Your task to perform on an android device: Add usb-a to the cart on newegg.com Image 0: 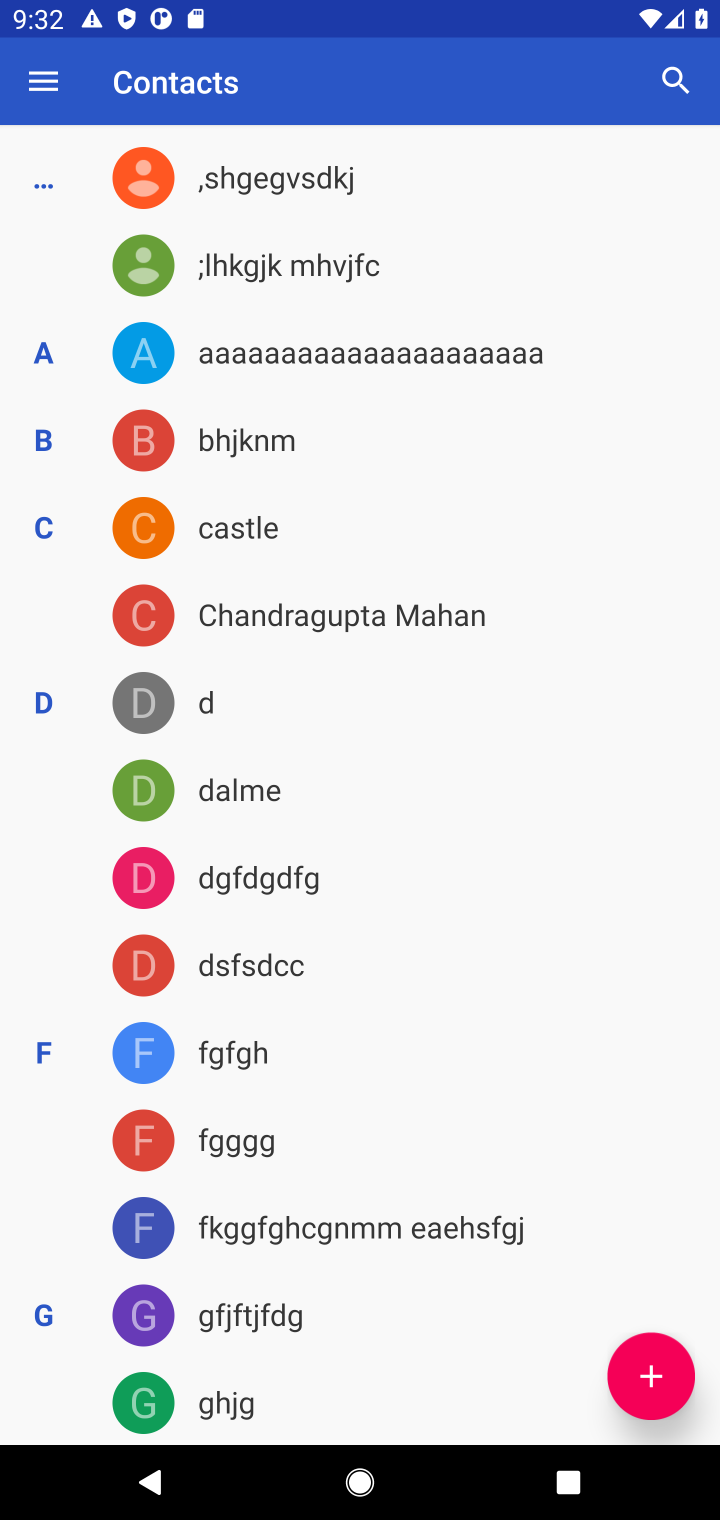
Step 0: press home button
Your task to perform on an android device: Add usb-a to the cart on newegg.com Image 1: 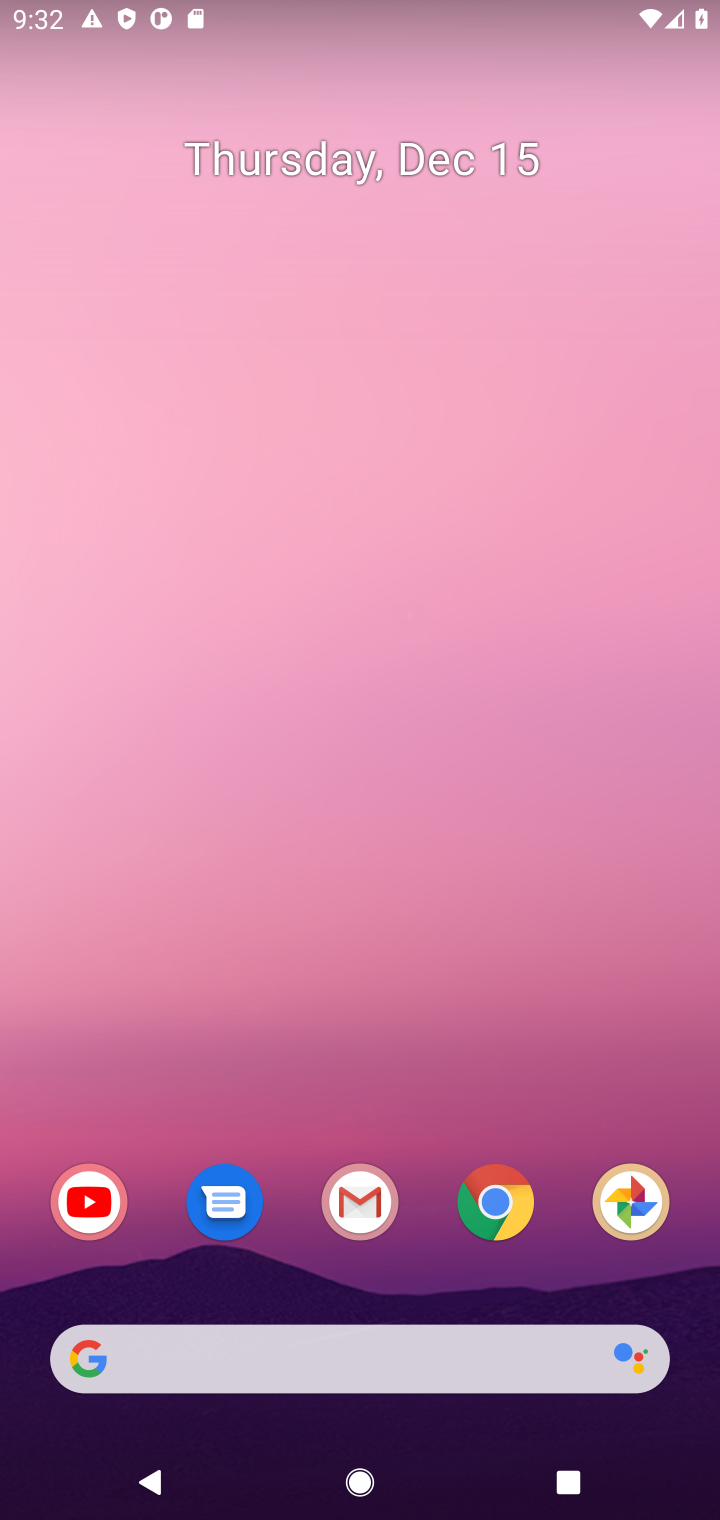
Step 1: click (481, 1204)
Your task to perform on an android device: Add usb-a to the cart on newegg.com Image 2: 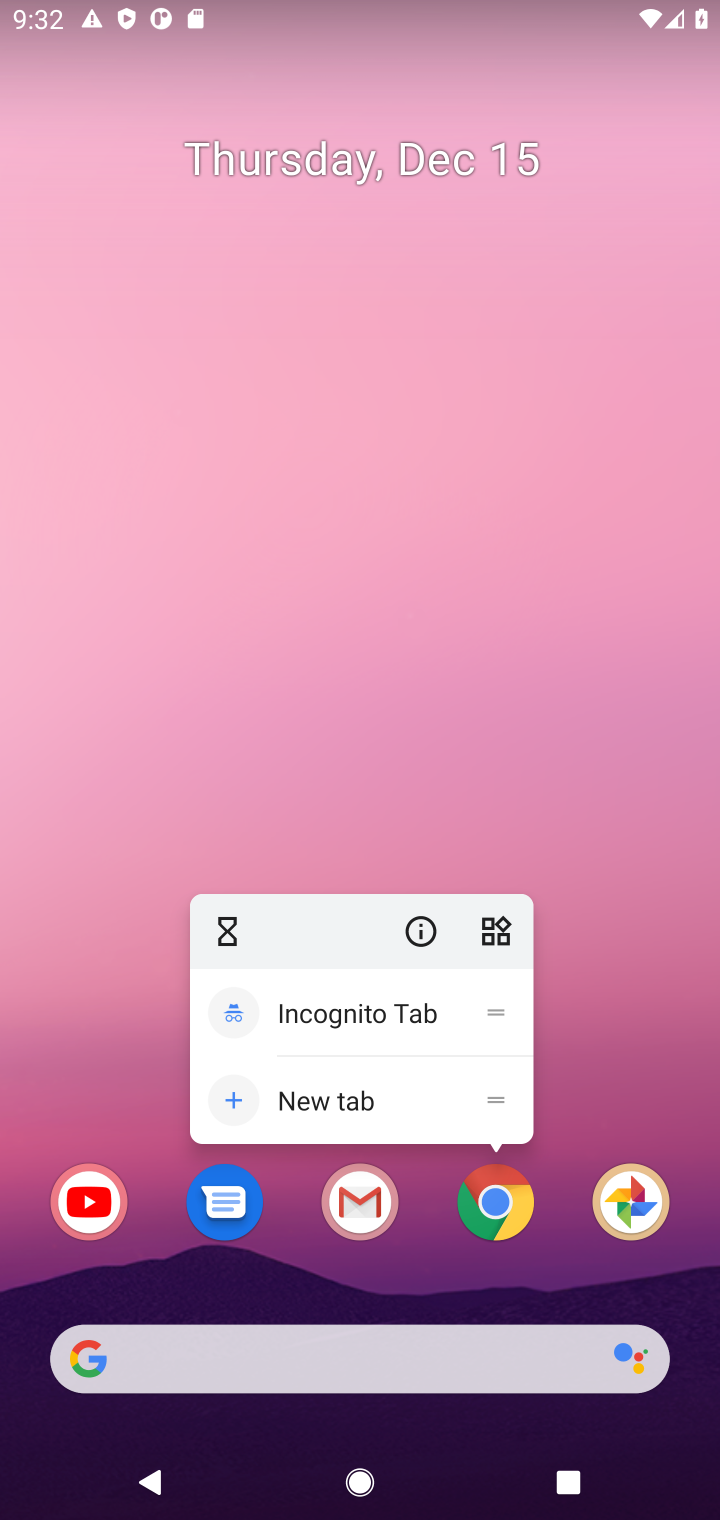
Step 2: click (496, 1223)
Your task to perform on an android device: Add usb-a to the cart on newegg.com Image 3: 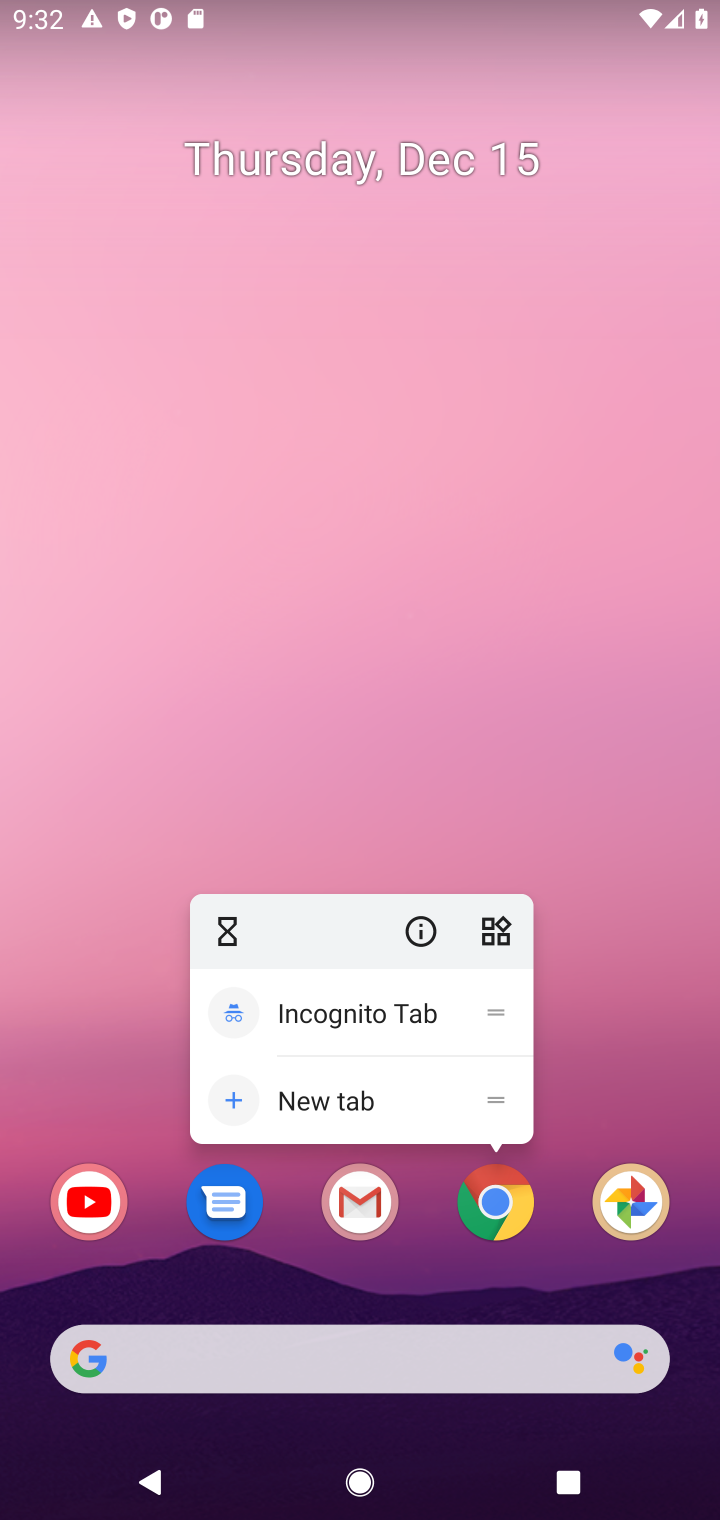
Step 3: click (498, 1215)
Your task to perform on an android device: Add usb-a to the cart on newegg.com Image 4: 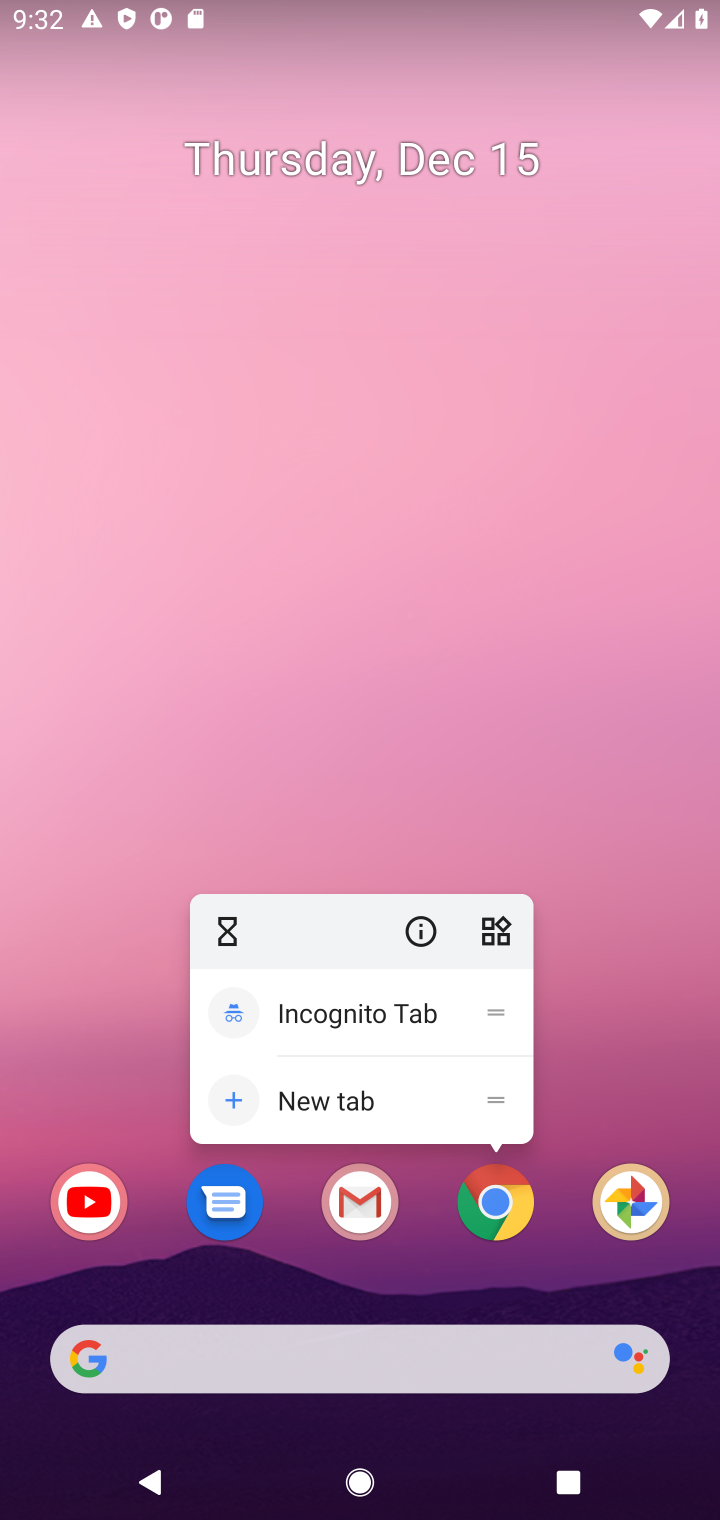
Step 4: click (498, 1215)
Your task to perform on an android device: Add usb-a to the cart on newegg.com Image 5: 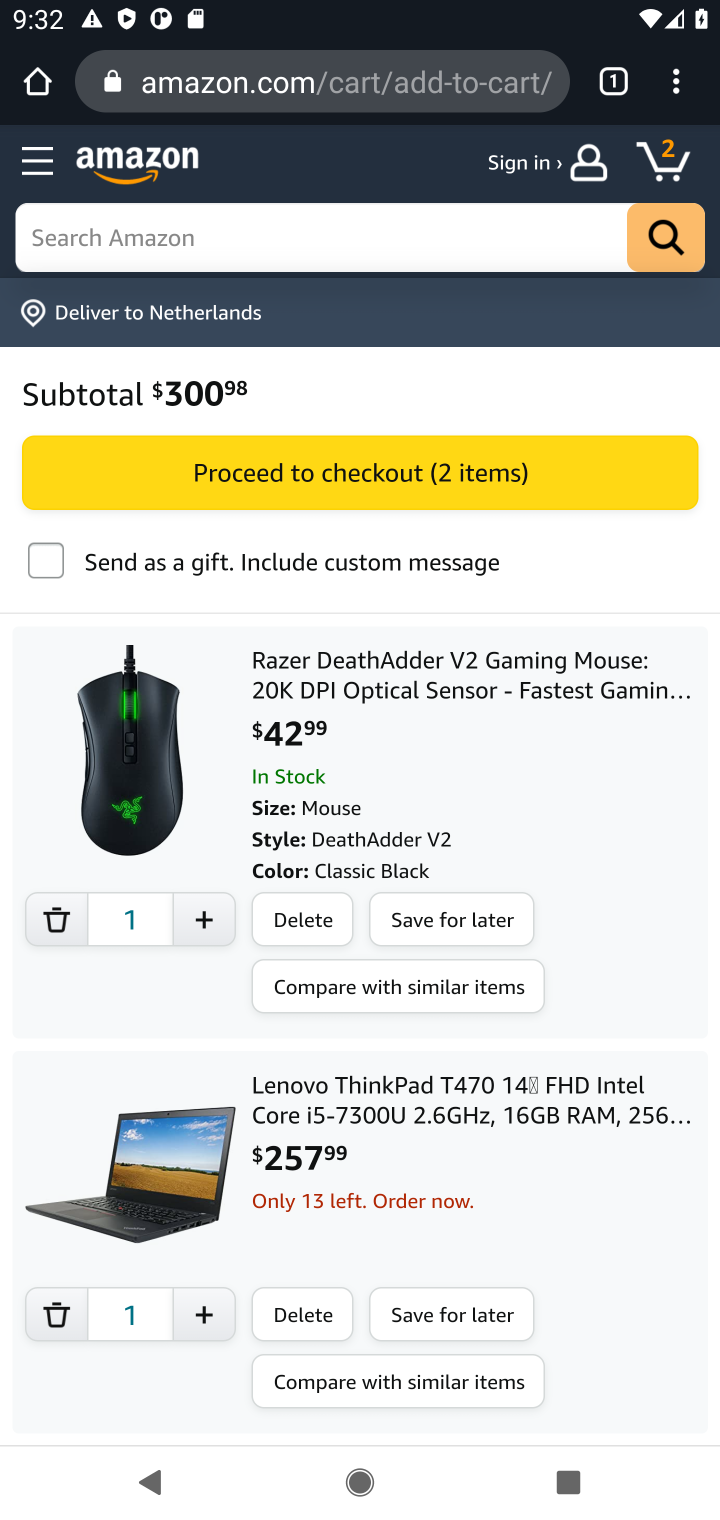
Step 5: click (303, 85)
Your task to perform on an android device: Add usb-a to the cart on newegg.com Image 6: 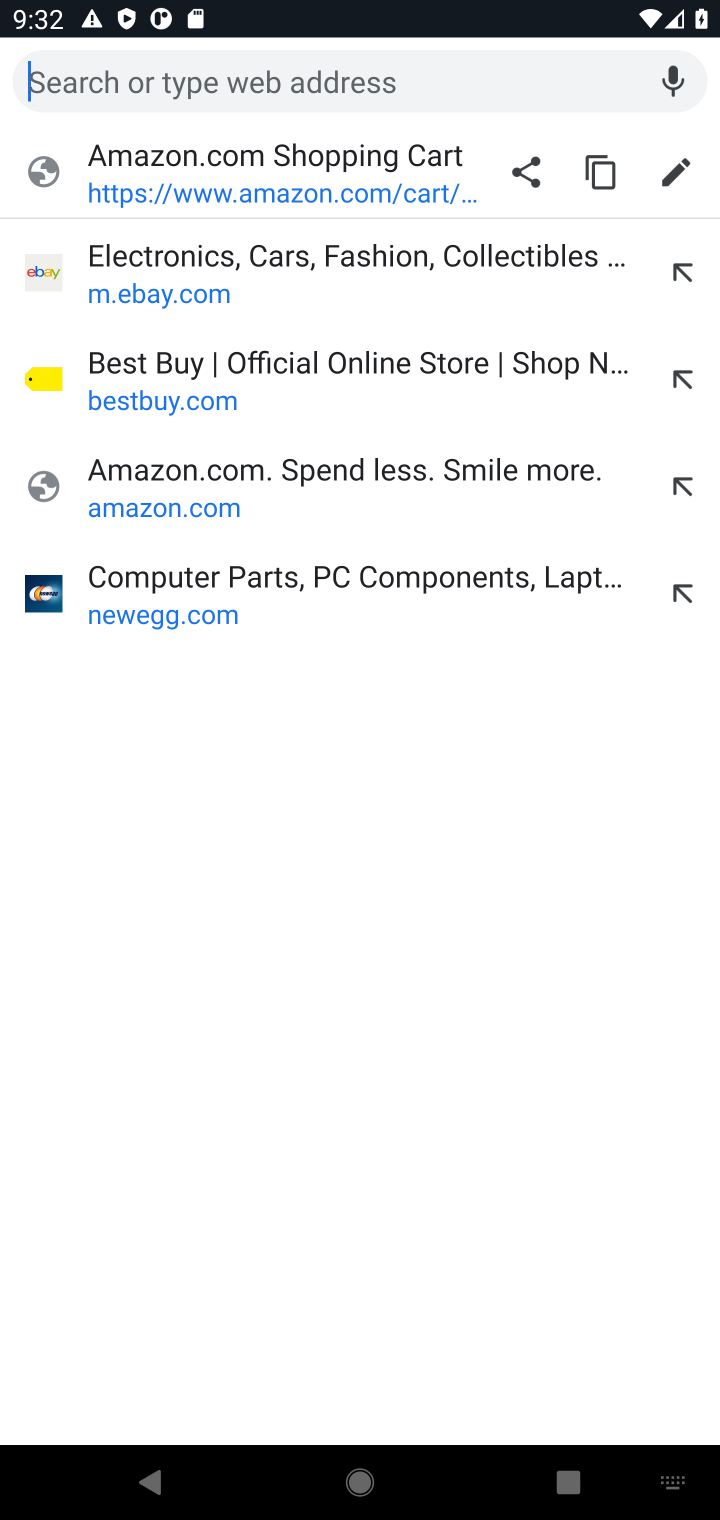
Step 6: click (123, 630)
Your task to perform on an android device: Add usb-a to the cart on newegg.com Image 7: 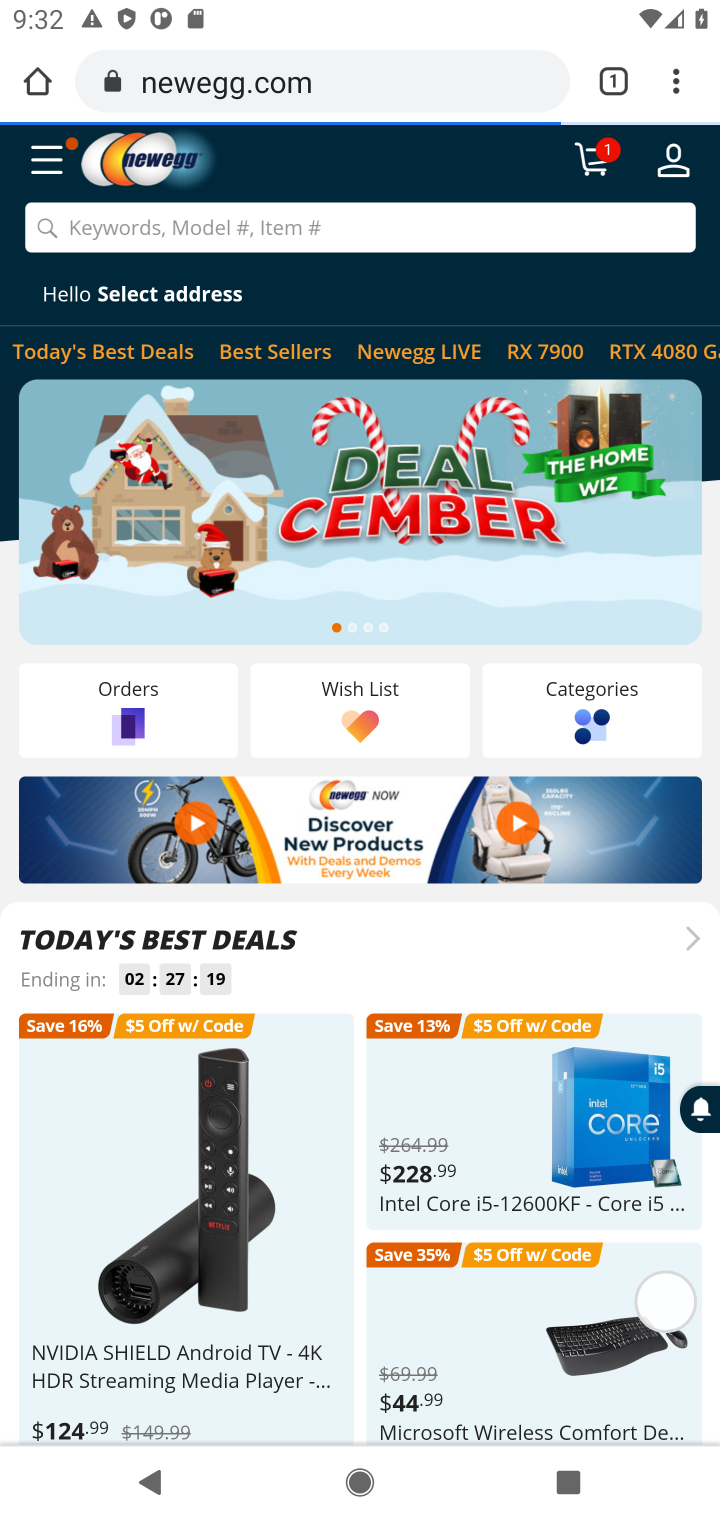
Step 7: click (165, 234)
Your task to perform on an android device: Add usb-a to the cart on newegg.com Image 8: 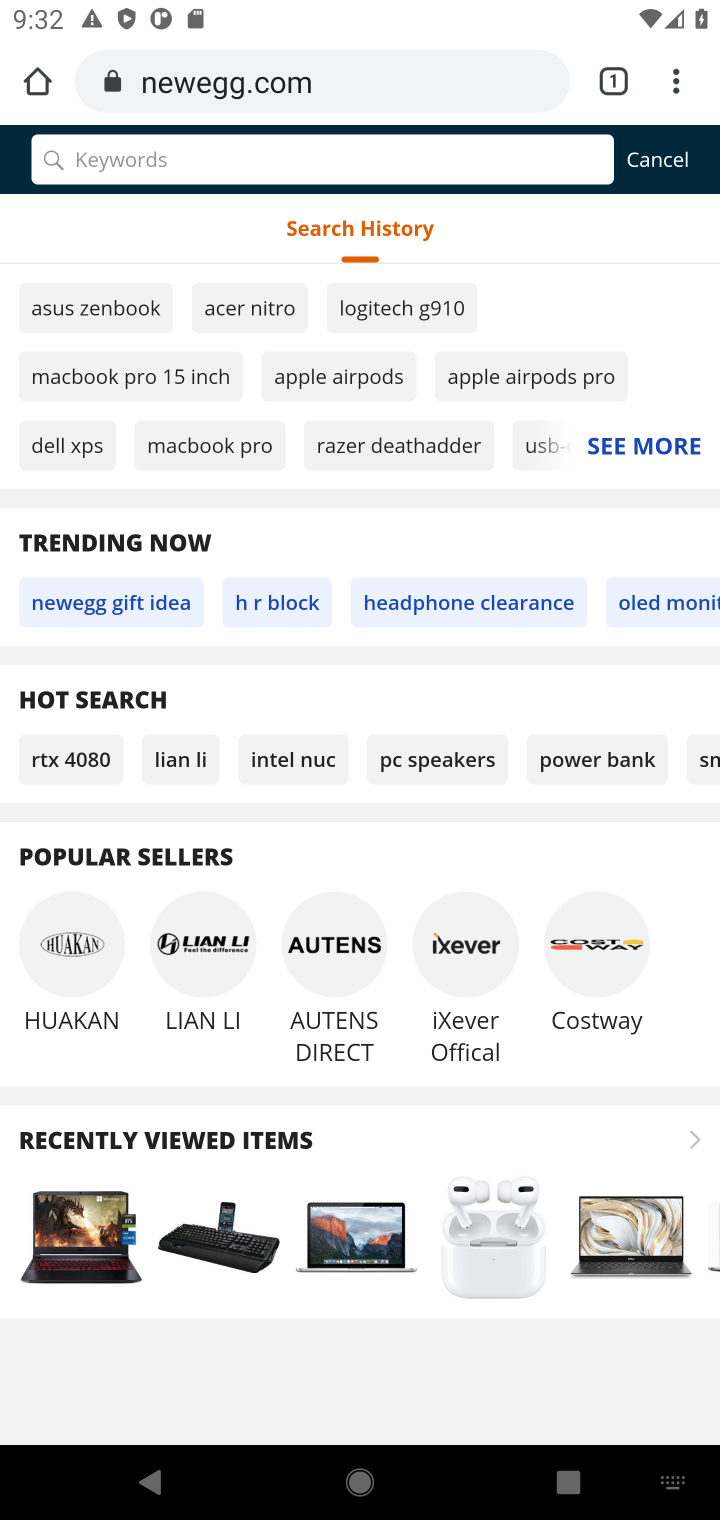
Step 8: type "usb-a"
Your task to perform on an android device: Add usb-a to the cart on newegg.com Image 9: 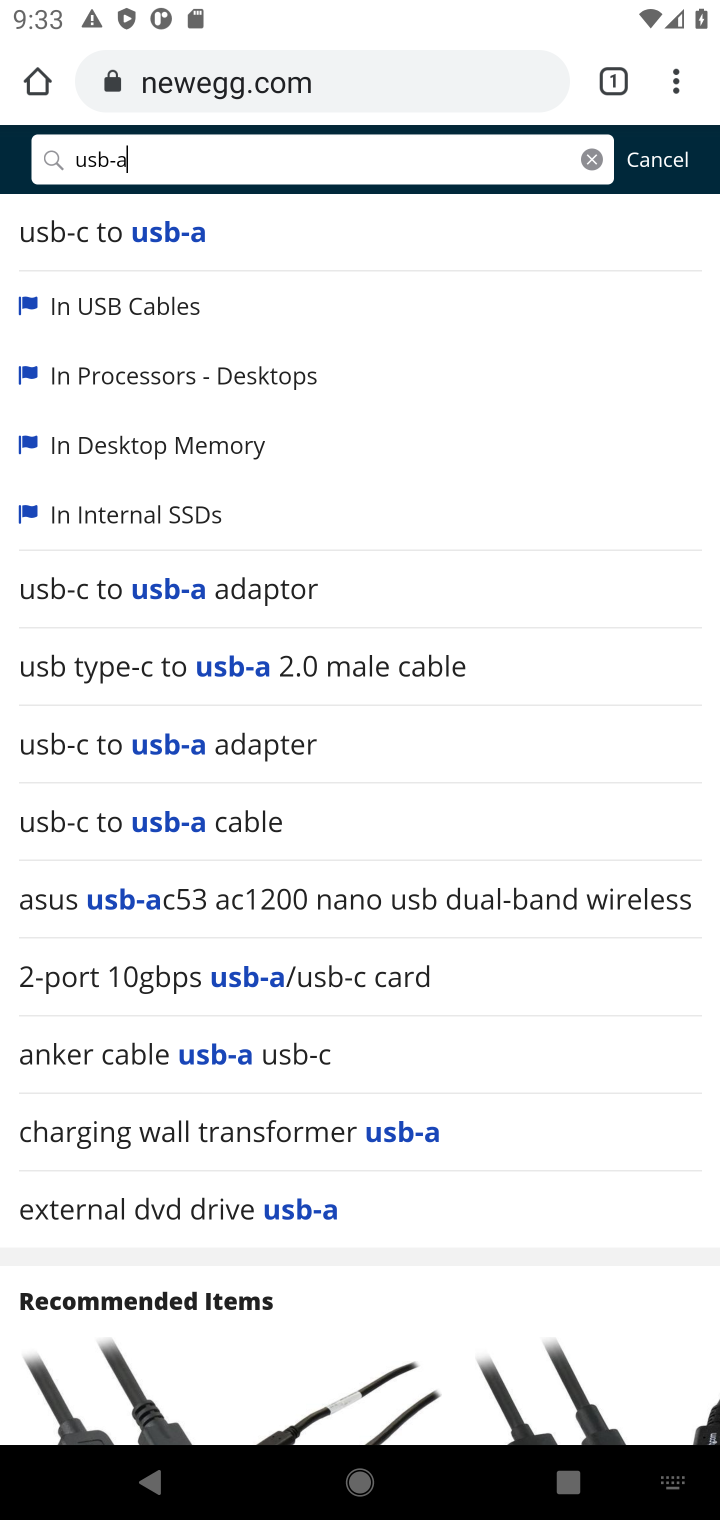
Step 9: drag from (186, 726) to (186, 403)
Your task to perform on an android device: Add usb-a to the cart on newegg.com Image 10: 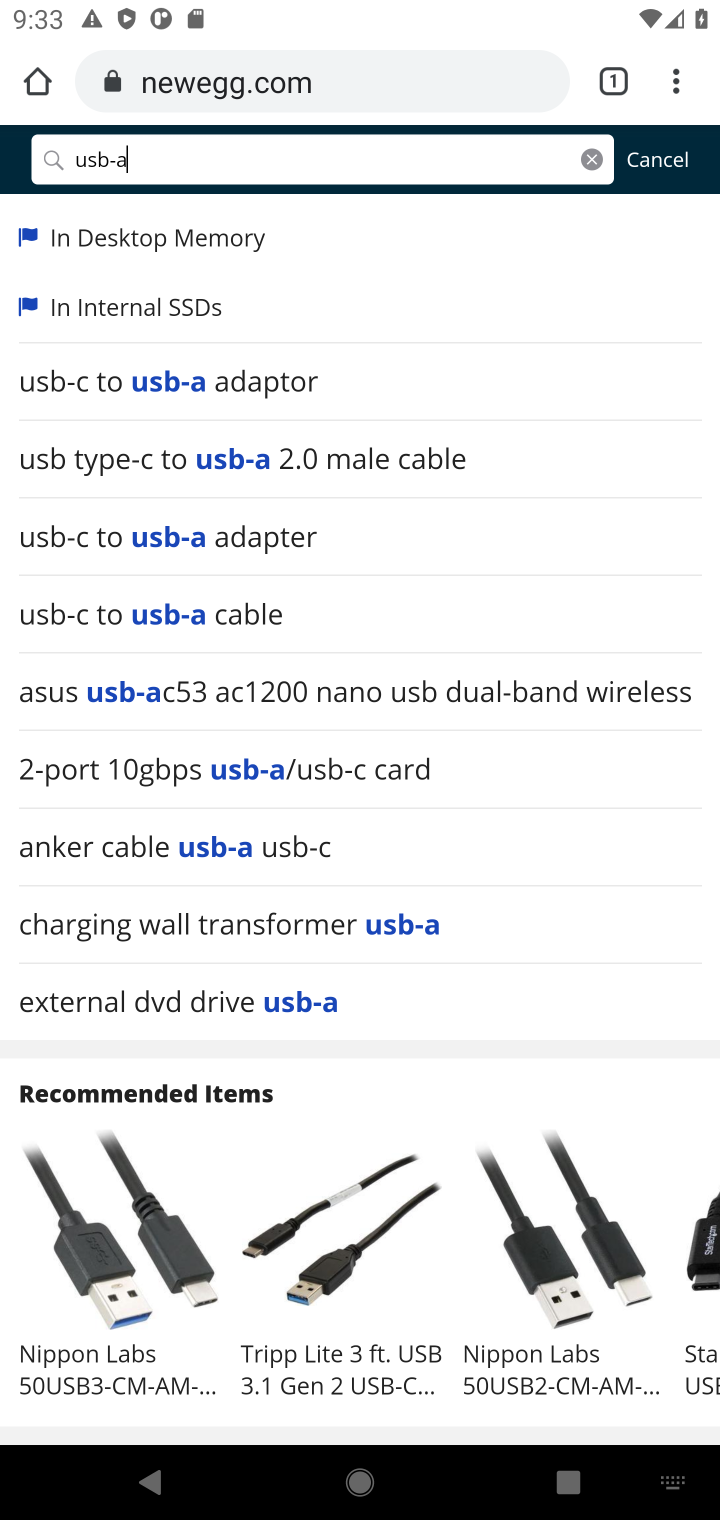
Step 10: drag from (186, 403) to (159, 904)
Your task to perform on an android device: Add usb-a to the cart on newegg.com Image 11: 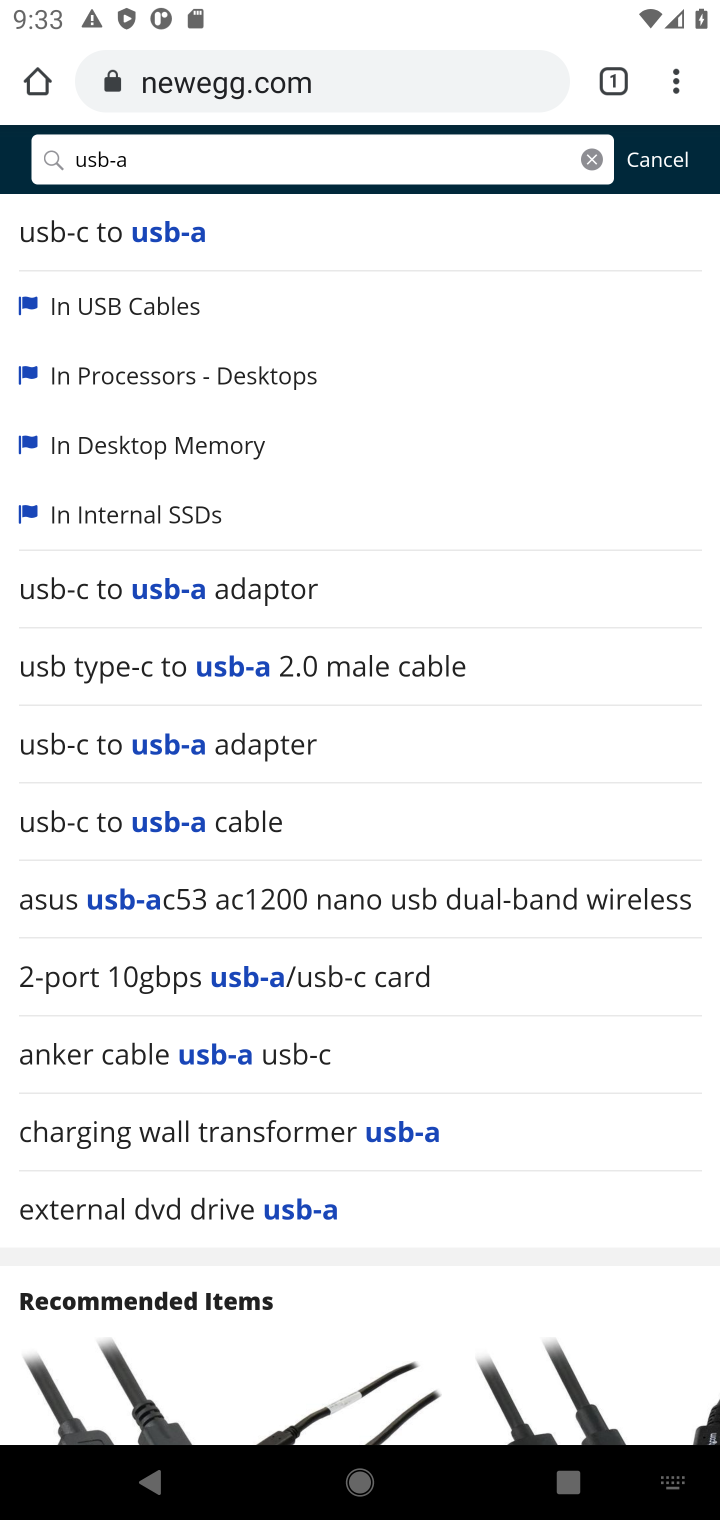
Step 11: click (151, 236)
Your task to perform on an android device: Add usb-a to the cart on newegg.com Image 12: 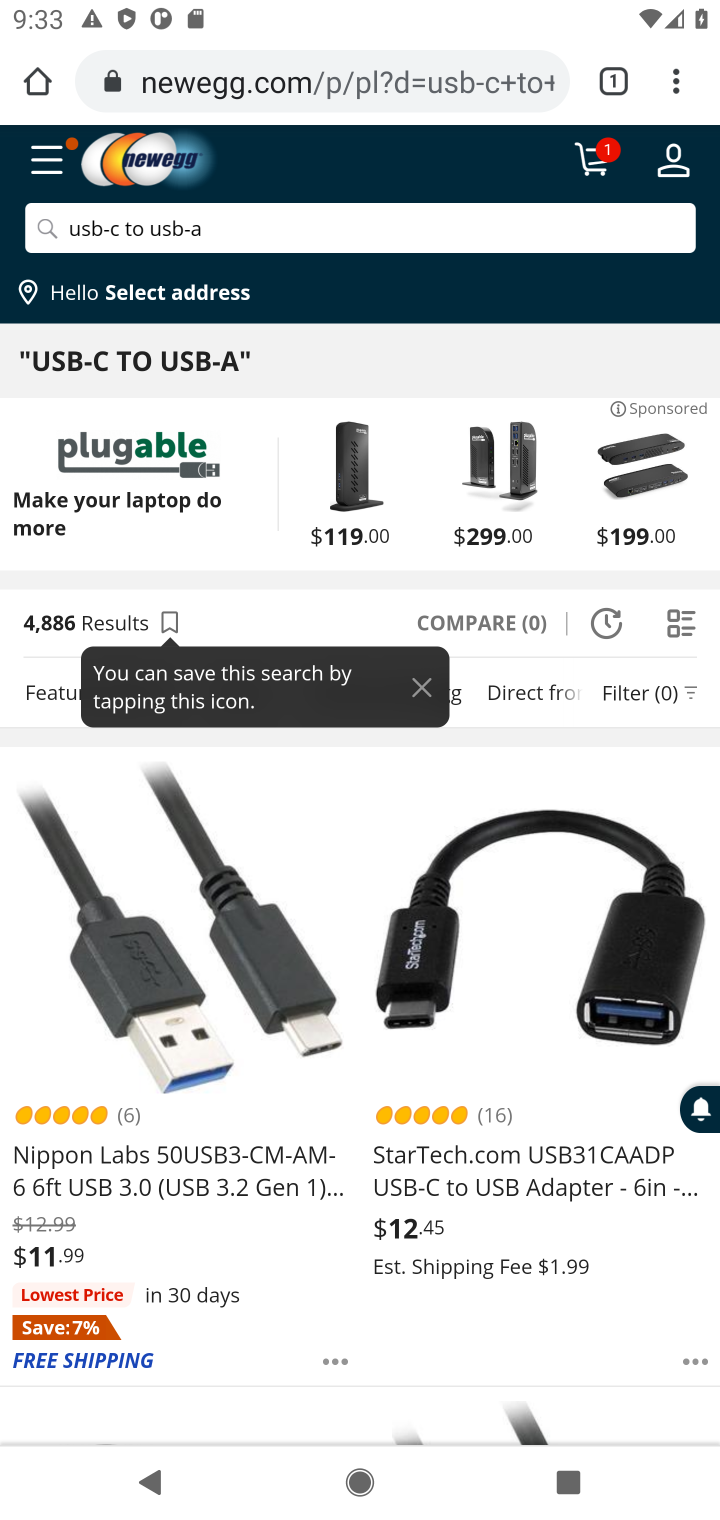
Step 12: drag from (293, 949) to (317, 631)
Your task to perform on an android device: Add usb-a to the cart on newegg.com Image 13: 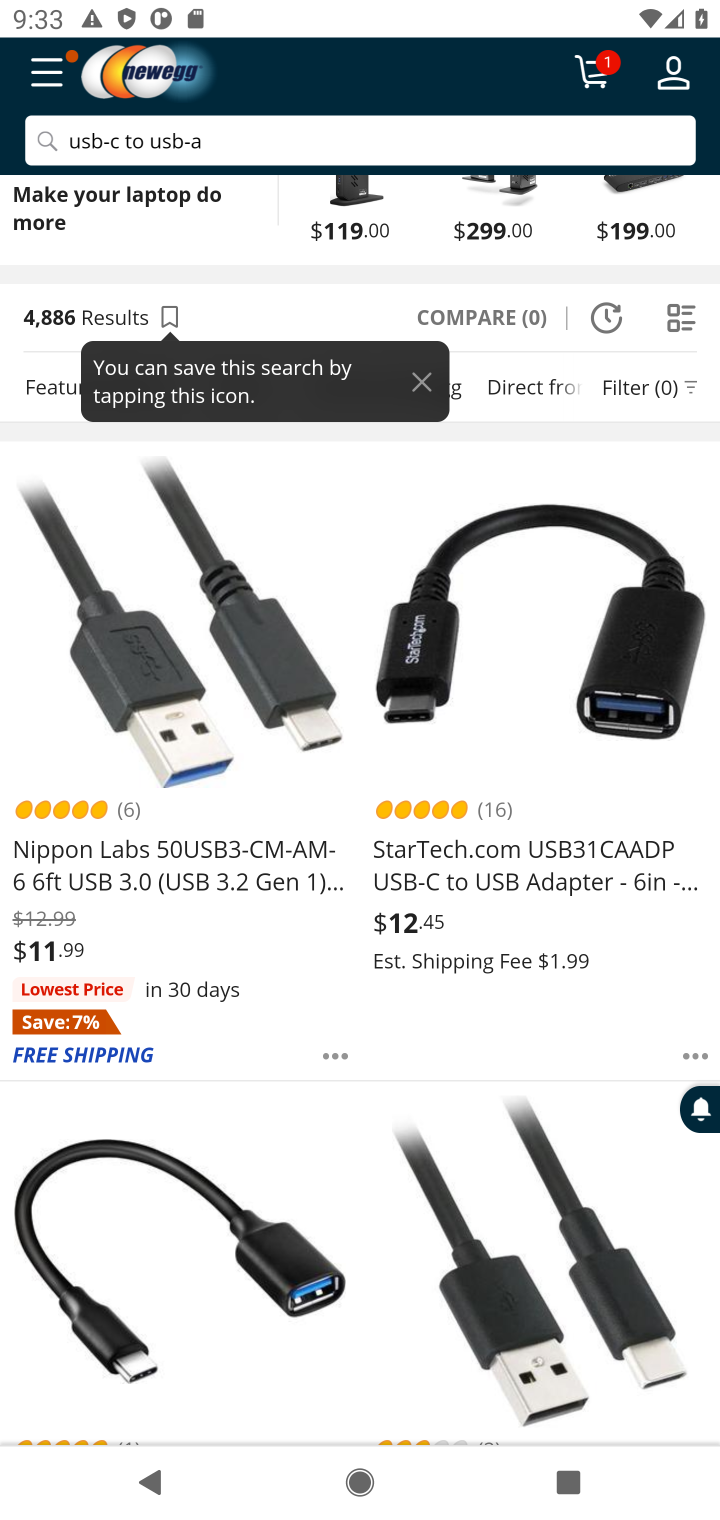
Step 13: drag from (277, 881) to (281, 538)
Your task to perform on an android device: Add usb-a to the cart on newegg.com Image 14: 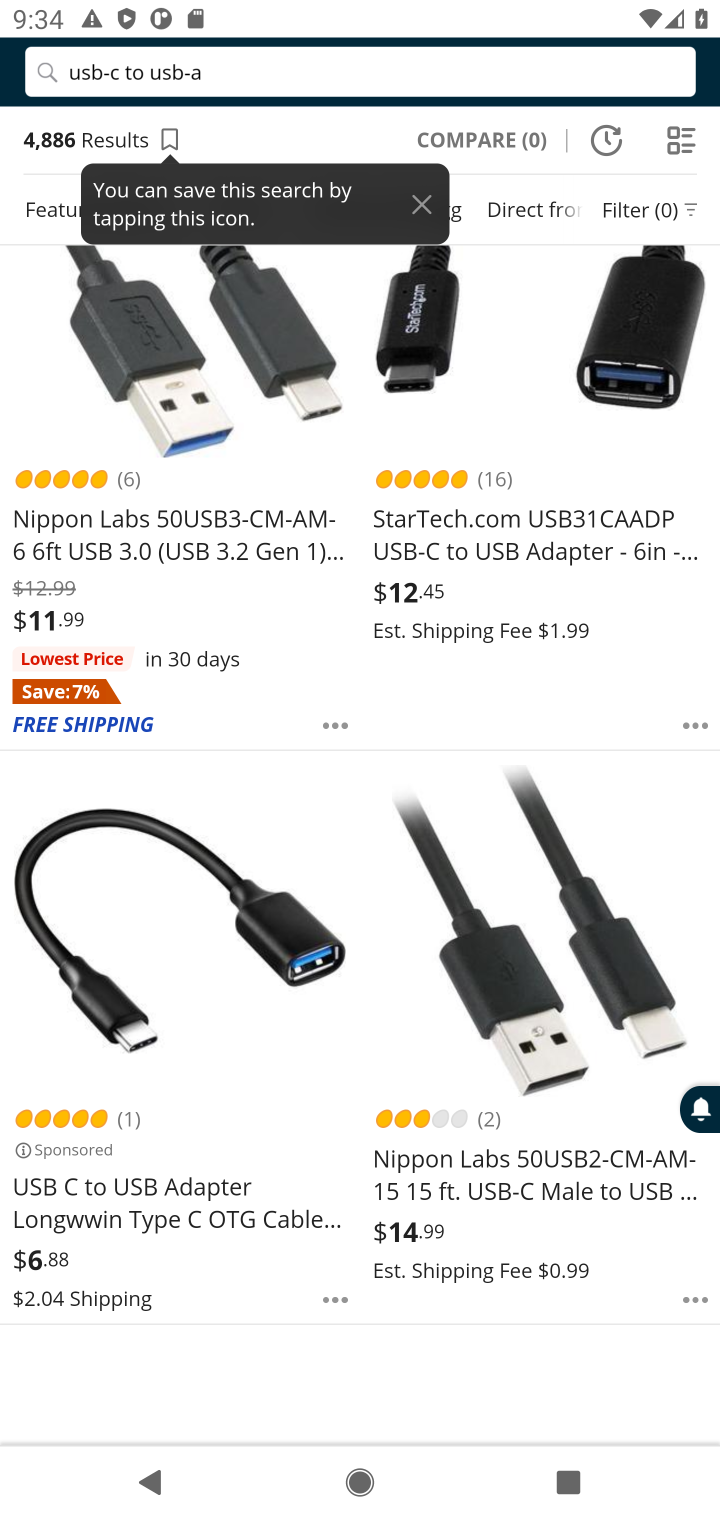
Step 14: drag from (285, 1059) to (290, 678)
Your task to perform on an android device: Add usb-a to the cart on newegg.com Image 15: 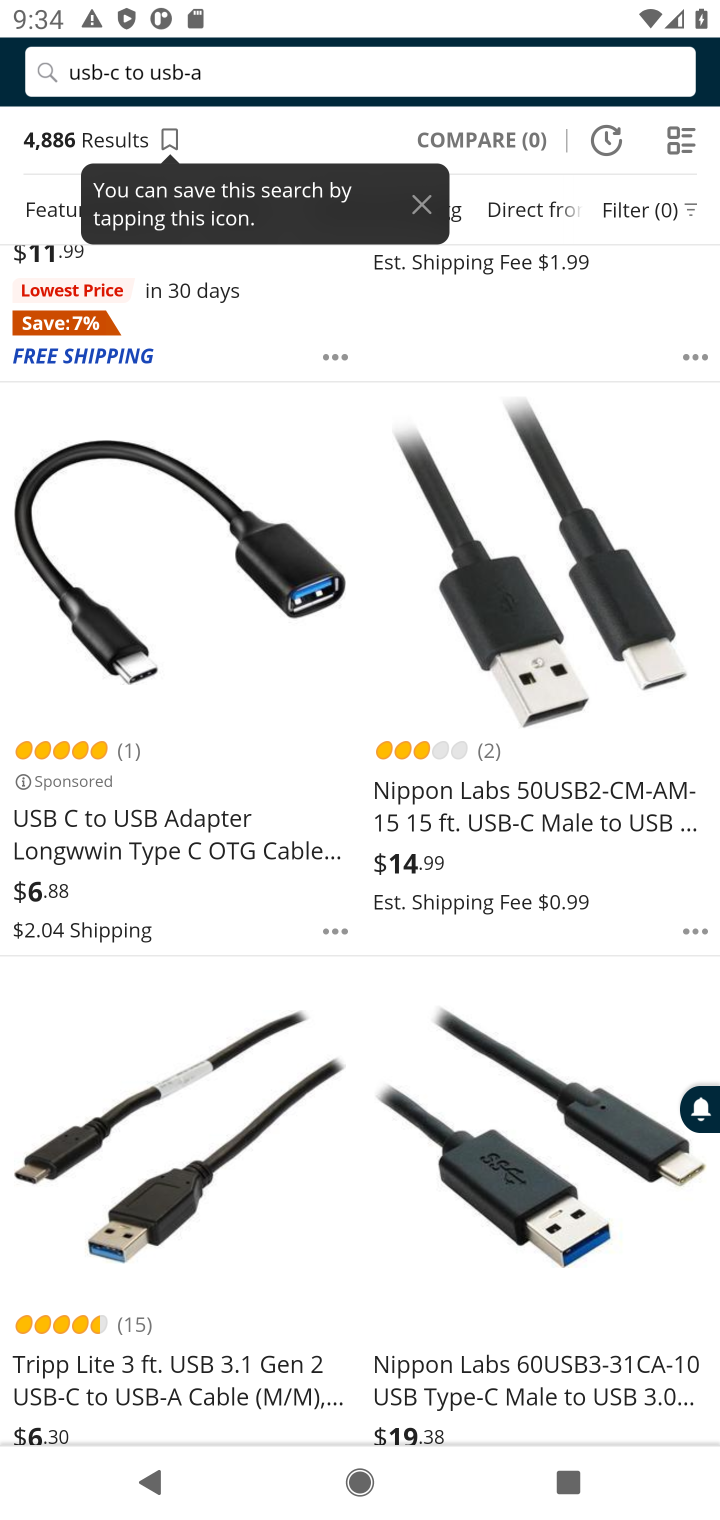
Step 15: click (158, 1267)
Your task to perform on an android device: Add usb-a to the cart on newegg.com Image 16: 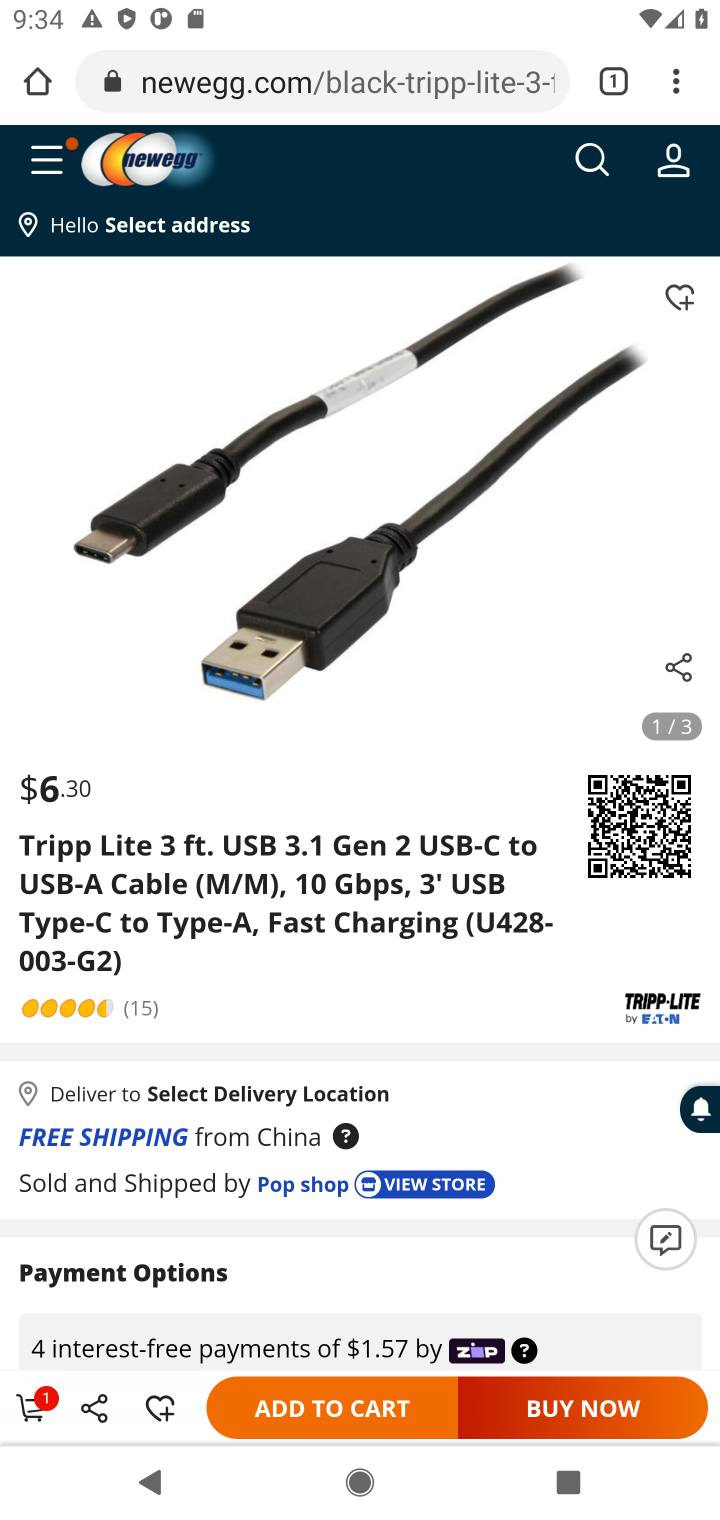
Step 16: click (315, 1404)
Your task to perform on an android device: Add usb-a to the cart on newegg.com Image 17: 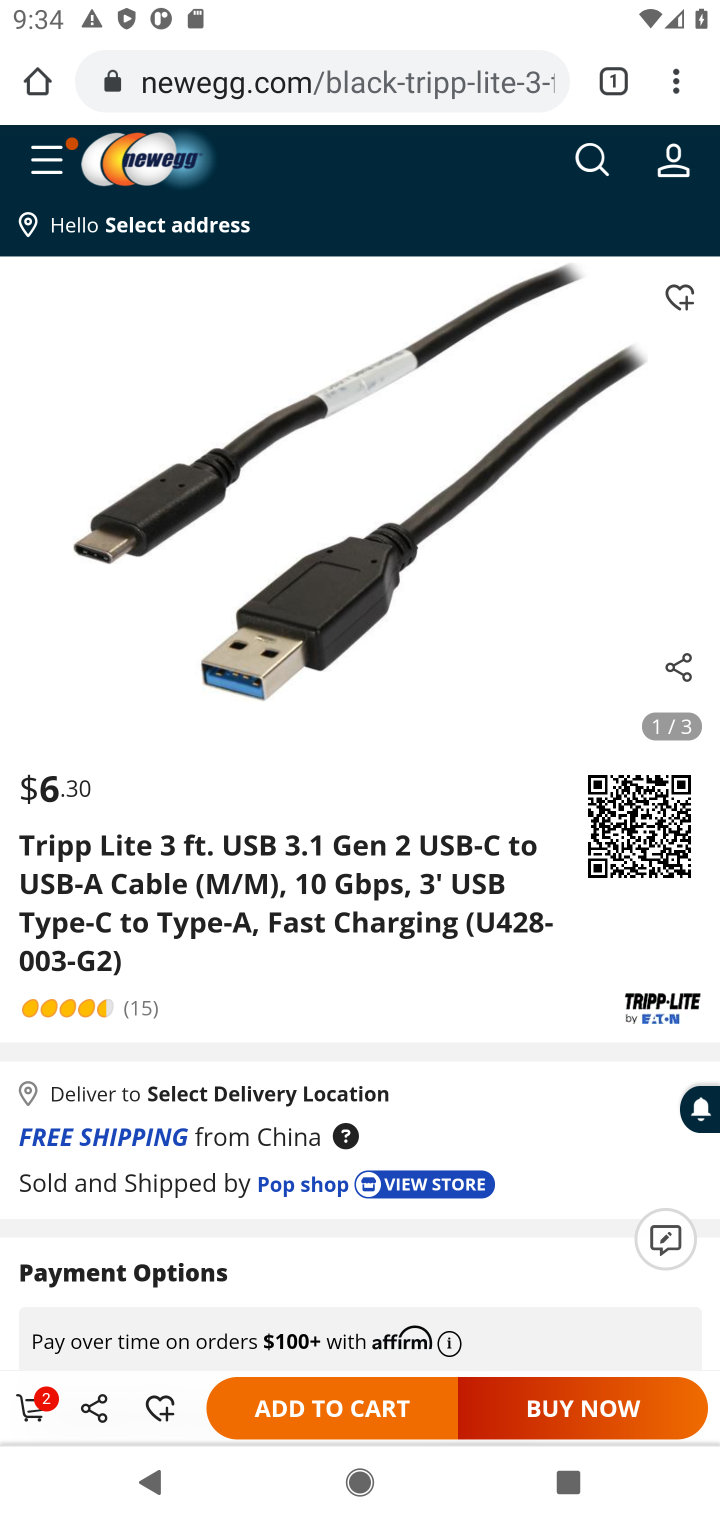
Step 17: task complete